Your task to perform on an android device: change the clock display to analog Image 0: 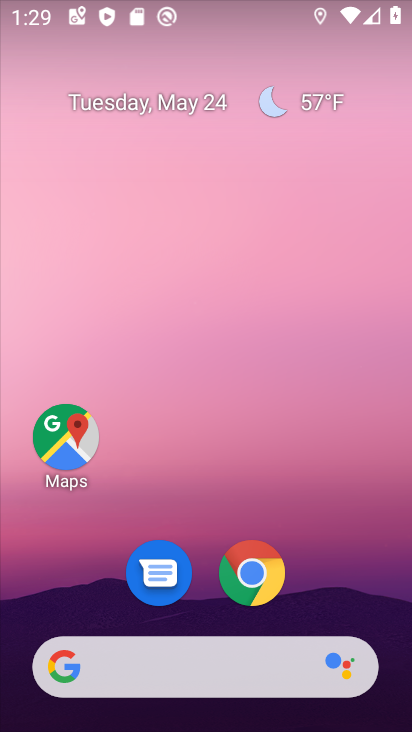
Step 0: click (279, 157)
Your task to perform on an android device: change the clock display to analog Image 1: 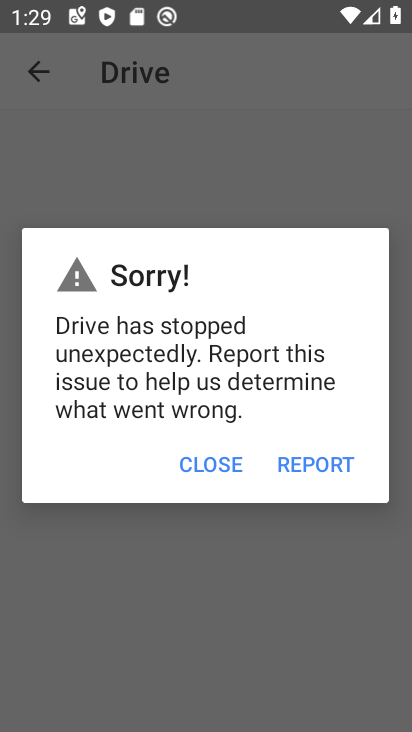
Step 1: press home button
Your task to perform on an android device: change the clock display to analog Image 2: 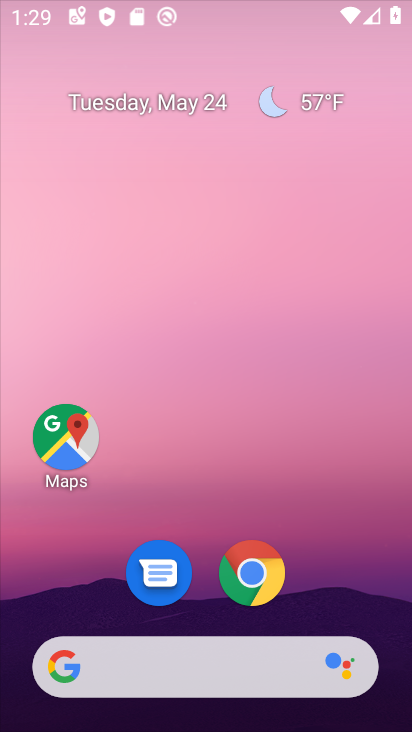
Step 2: drag from (356, 569) to (296, 109)
Your task to perform on an android device: change the clock display to analog Image 3: 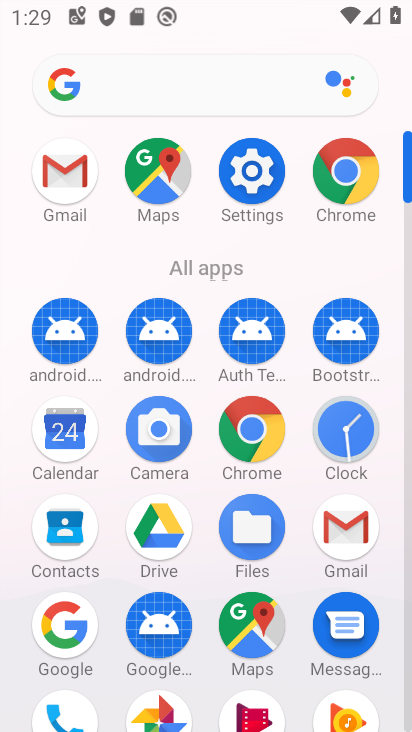
Step 3: click (364, 463)
Your task to perform on an android device: change the clock display to analog Image 4: 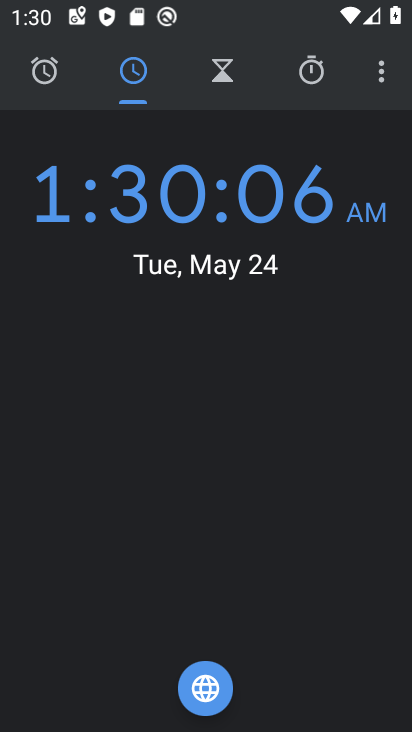
Step 4: click (383, 69)
Your task to perform on an android device: change the clock display to analog Image 5: 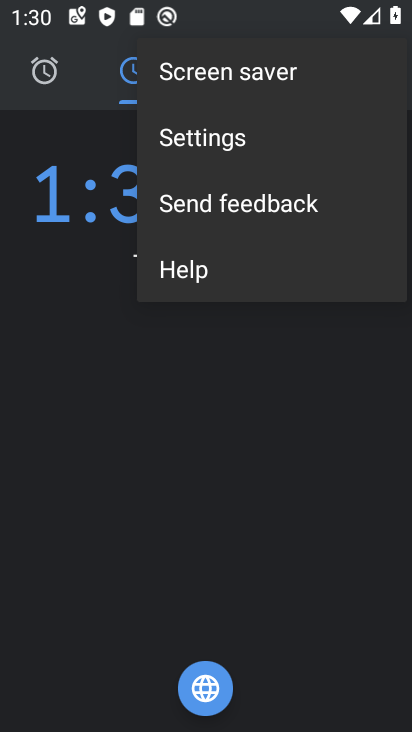
Step 5: click (282, 128)
Your task to perform on an android device: change the clock display to analog Image 6: 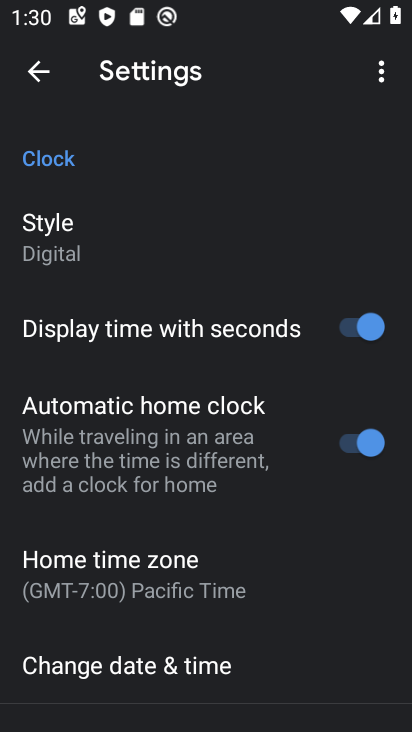
Step 6: click (77, 226)
Your task to perform on an android device: change the clock display to analog Image 7: 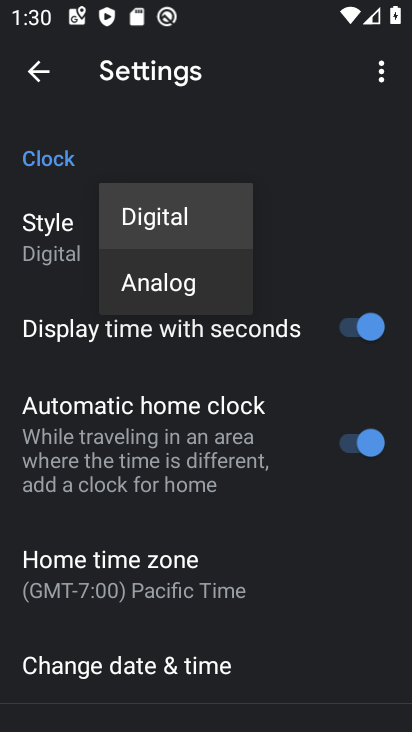
Step 7: click (139, 280)
Your task to perform on an android device: change the clock display to analog Image 8: 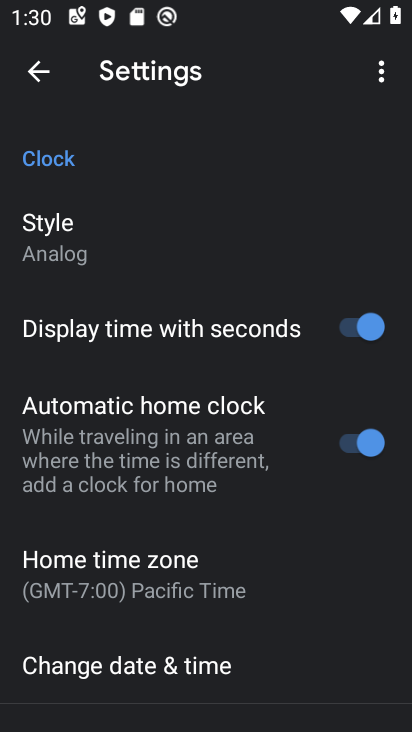
Step 8: task complete